Your task to perform on an android device: turn off notifications in google photos Image 0: 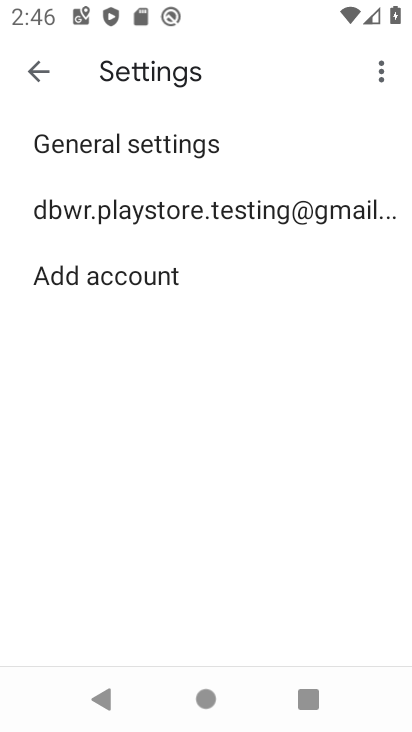
Step 0: press home button
Your task to perform on an android device: turn off notifications in google photos Image 1: 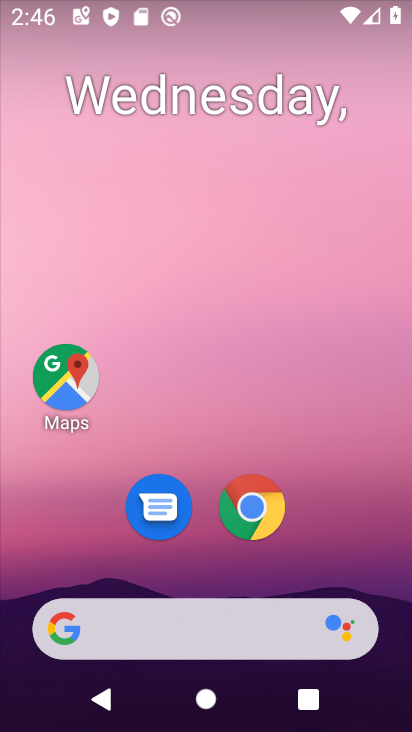
Step 1: drag from (320, 484) to (336, 71)
Your task to perform on an android device: turn off notifications in google photos Image 2: 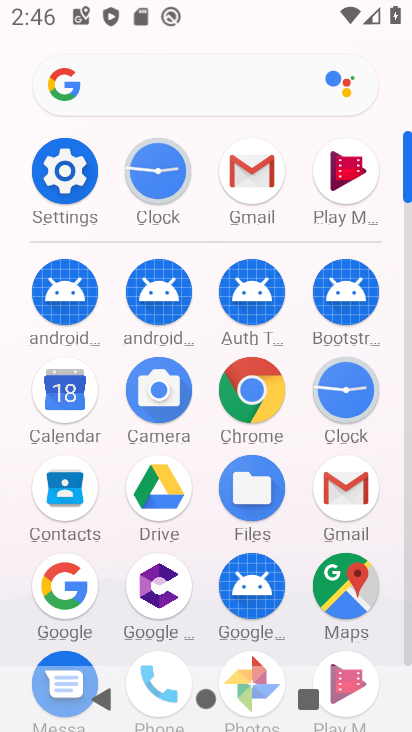
Step 2: drag from (287, 623) to (326, 150)
Your task to perform on an android device: turn off notifications in google photos Image 3: 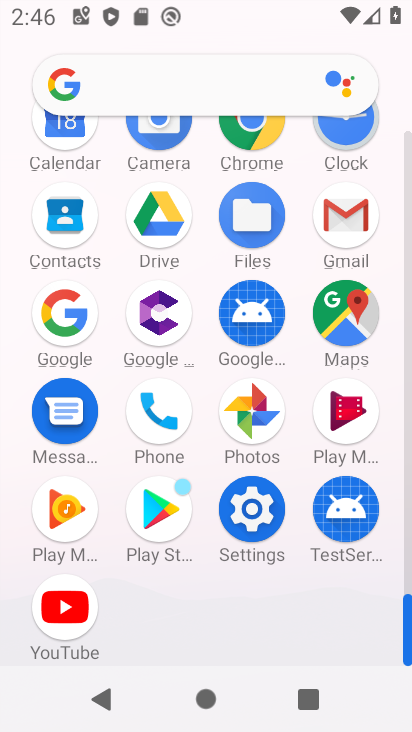
Step 3: click (257, 423)
Your task to perform on an android device: turn off notifications in google photos Image 4: 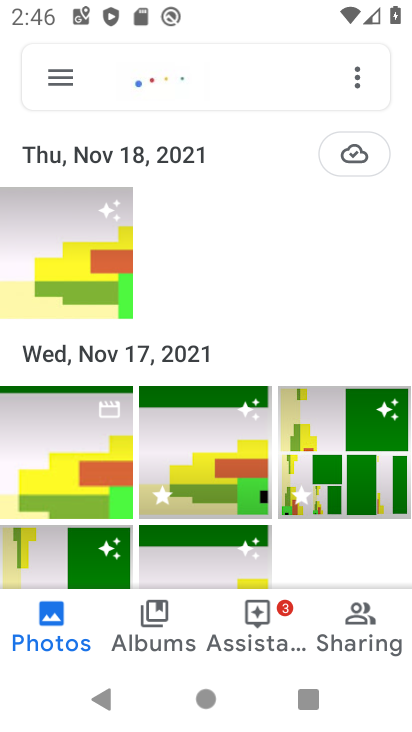
Step 4: click (354, 81)
Your task to perform on an android device: turn off notifications in google photos Image 5: 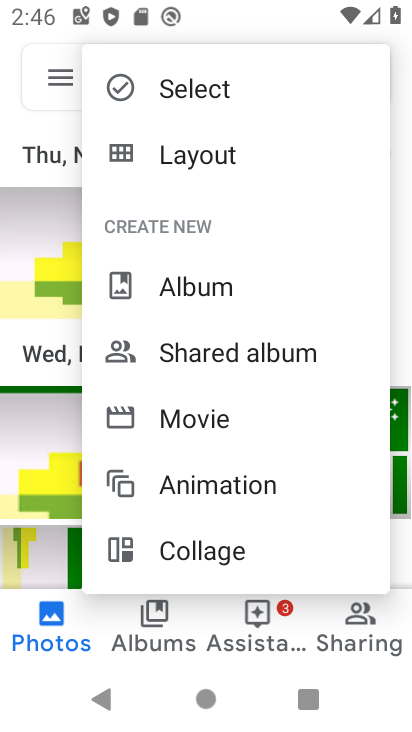
Step 5: drag from (339, 495) to (339, 90)
Your task to perform on an android device: turn off notifications in google photos Image 6: 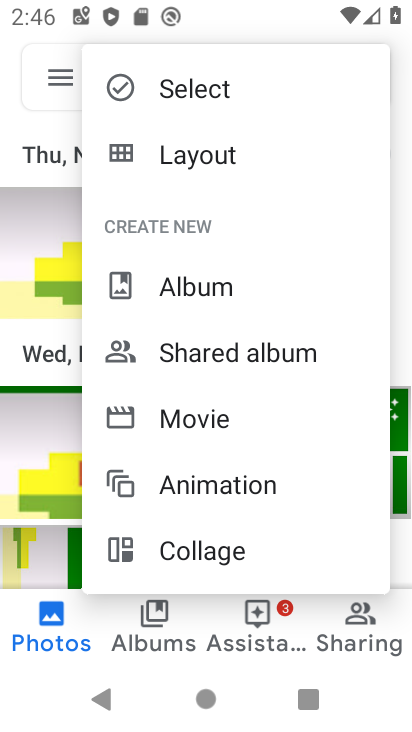
Step 6: press back button
Your task to perform on an android device: turn off notifications in google photos Image 7: 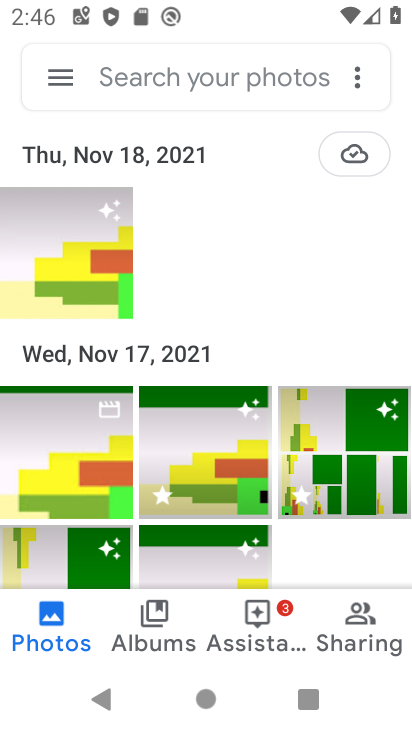
Step 7: click (53, 72)
Your task to perform on an android device: turn off notifications in google photos Image 8: 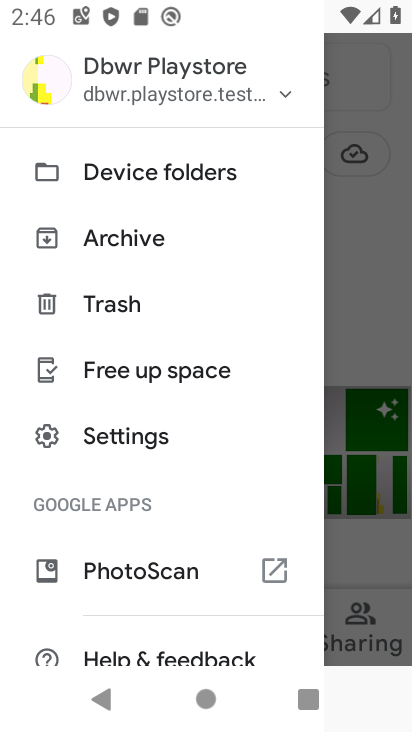
Step 8: click (167, 450)
Your task to perform on an android device: turn off notifications in google photos Image 9: 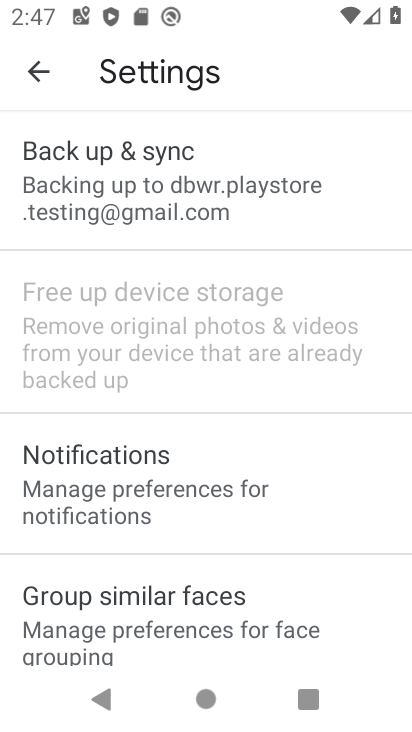
Step 9: click (200, 495)
Your task to perform on an android device: turn off notifications in google photos Image 10: 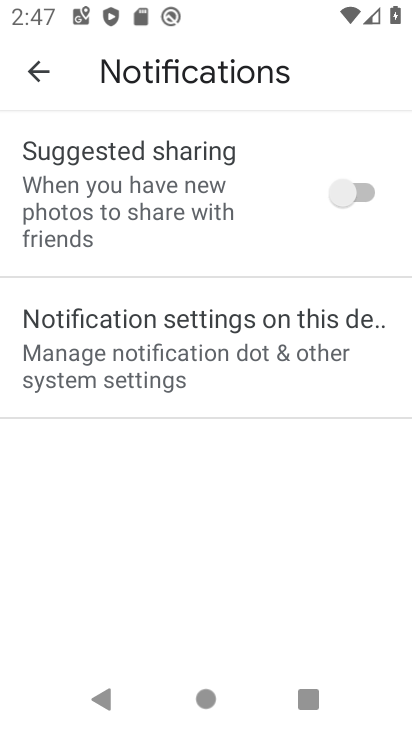
Step 10: task complete